Your task to perform on an android device: remove spam from my inbox in the gmail app Image 0: 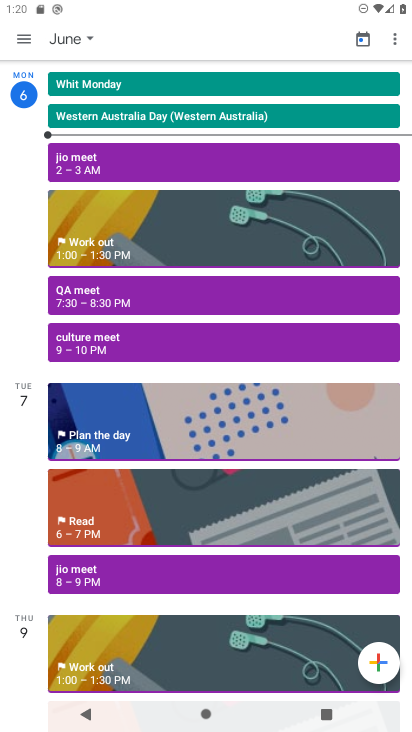
Step 0: press home button
Your task to perform on an android device: remove spam from my inbox in the gmail app Image 1: 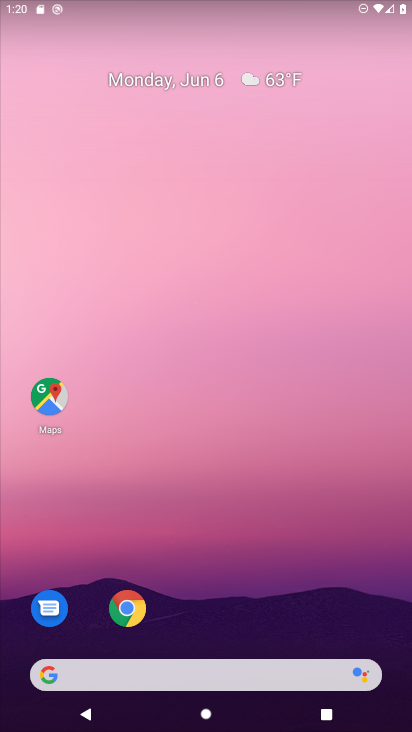
Step 1: drag from (246, 643) to (301, 21)
Your task to perform on an android device: remove spam from my inbox in the gmail app Image 2: 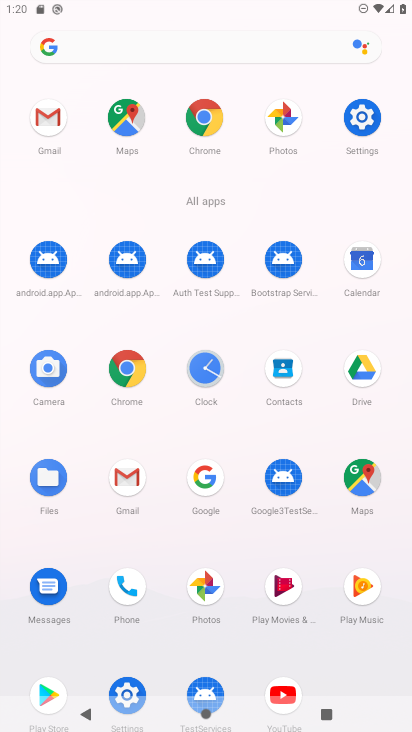
Step 2: click (53, 117)
Your task to perform on an android device: remove spam from my inbox in the gmail app Image 3: 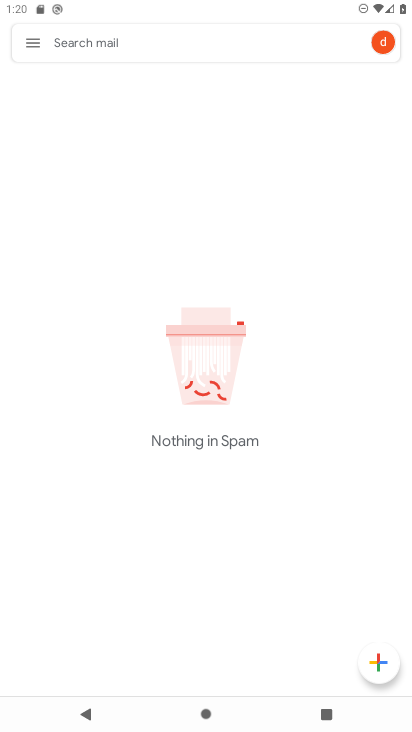
Step 3: task complete